Your task to perform on an android device: install app "Etsy: Buy & Sell Unique Items" Image 0: 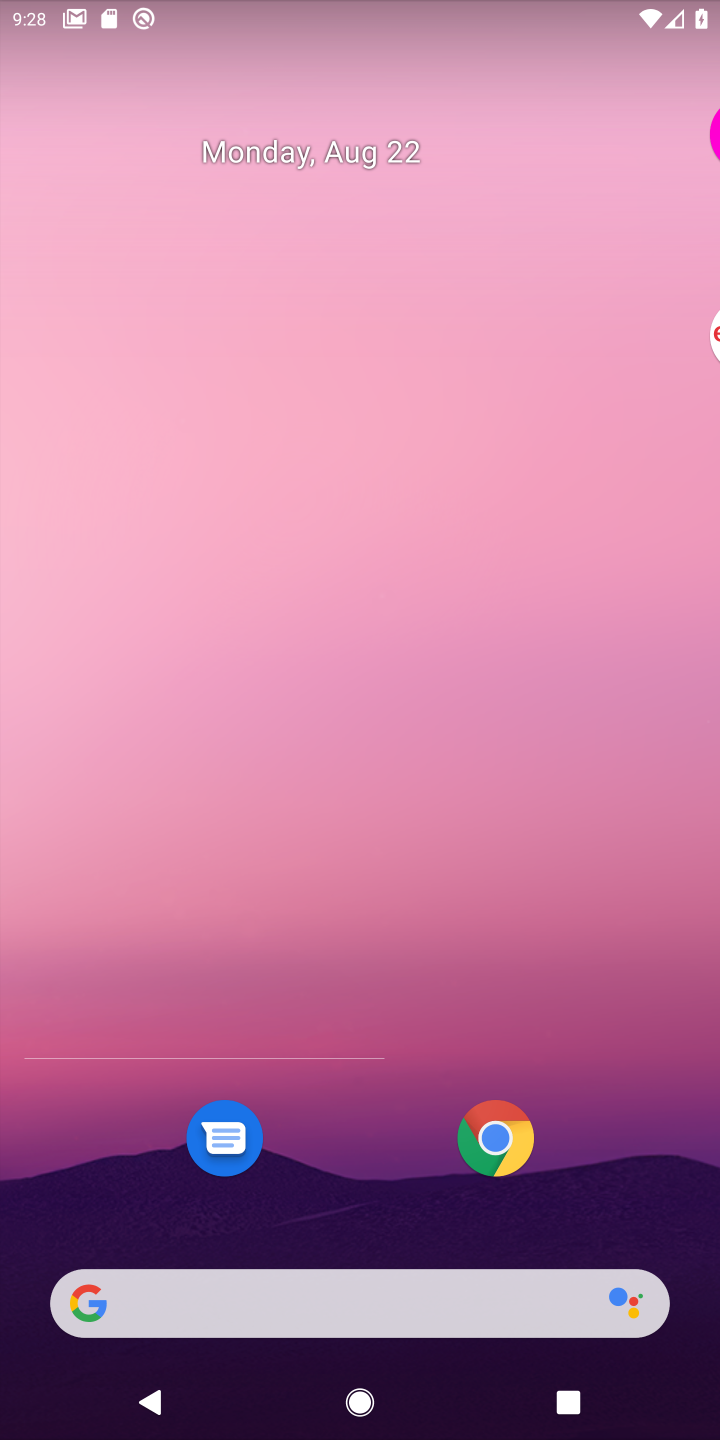
Step 0: press home button
Your task to perform on an android device: install app "Etsy: Buy & Sell Unique Items" Image 1: 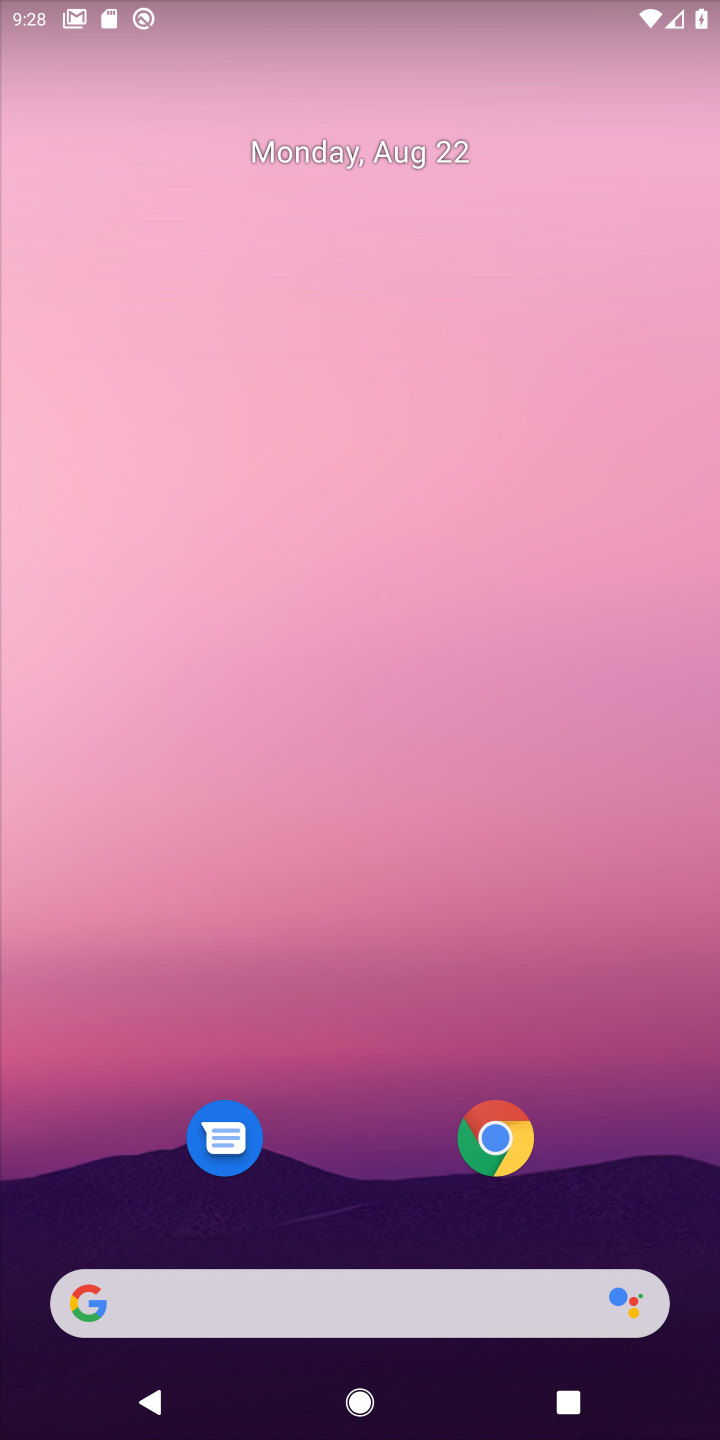
Step 1: drag from (358, 1264) to (440, 18)
Your task to perform on an android device: install app "Etsy: Buy & Sell Unique Items" Image 2: 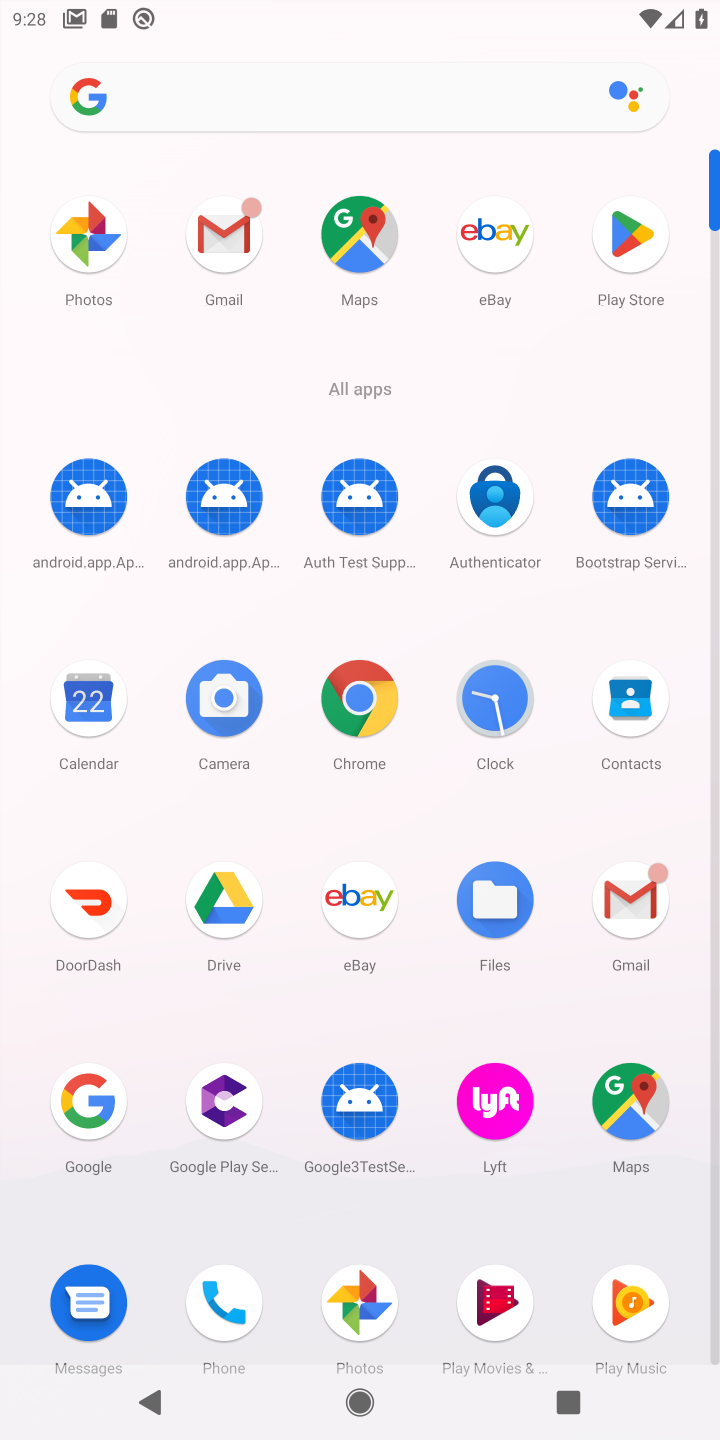
Step 2: drag from (283, 1218) to (341, 213)
Your task to perform on an android device: install app "Etsy: Buy & Sell Unique Items" Image 3: 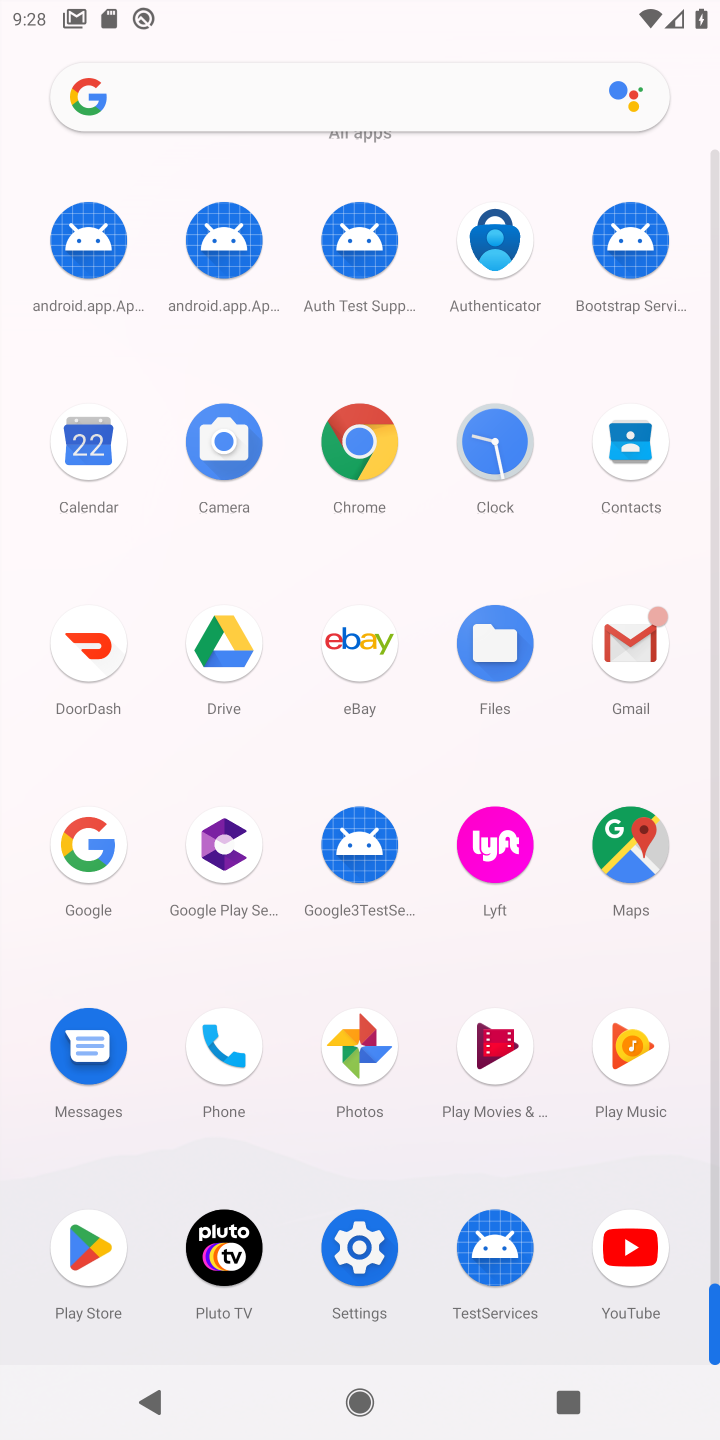
Step 3: click (74, 1249)
Your task to perform on an android device: install app "Etsy: Buy & Sell Unique Items" Image 4: 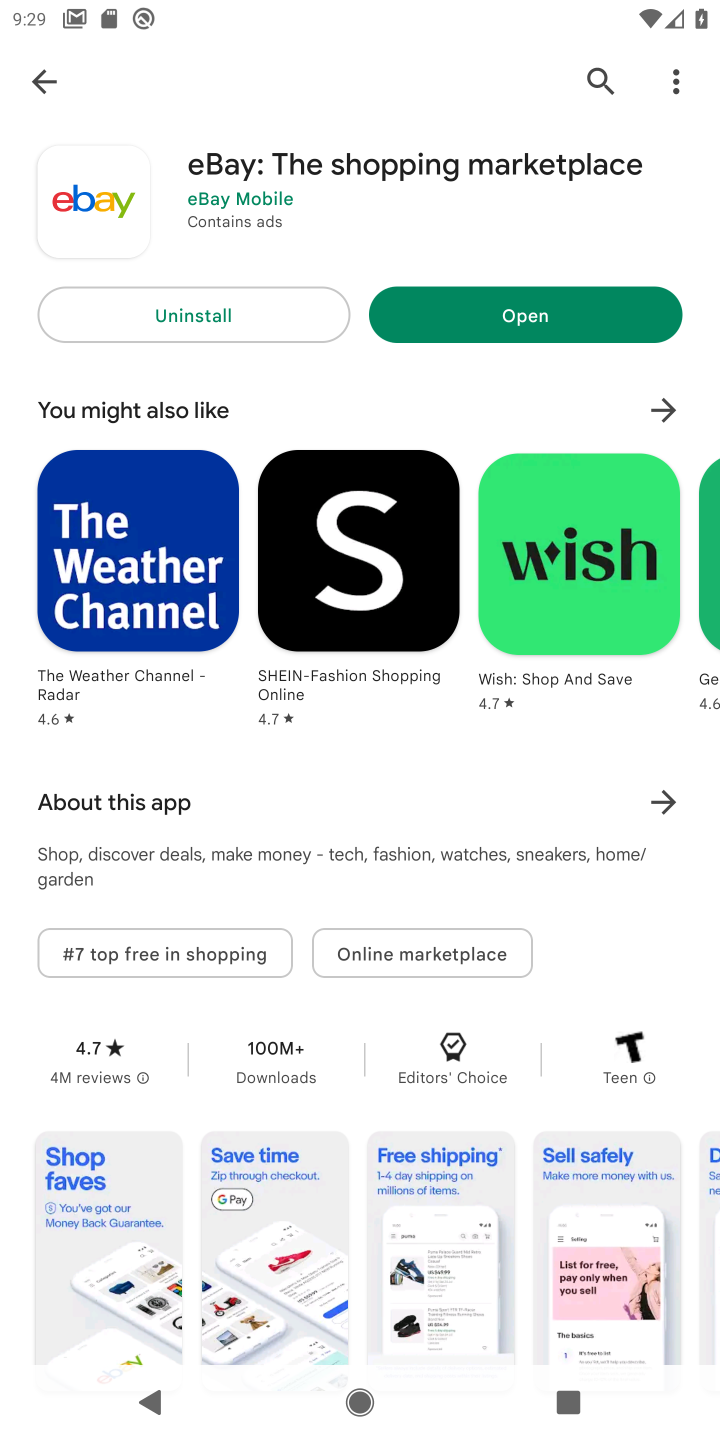
Step 4: click (586, 69)
Your task to perform on an android device: install app "Etsy: Buy & Sell Unique Items" Image 5: 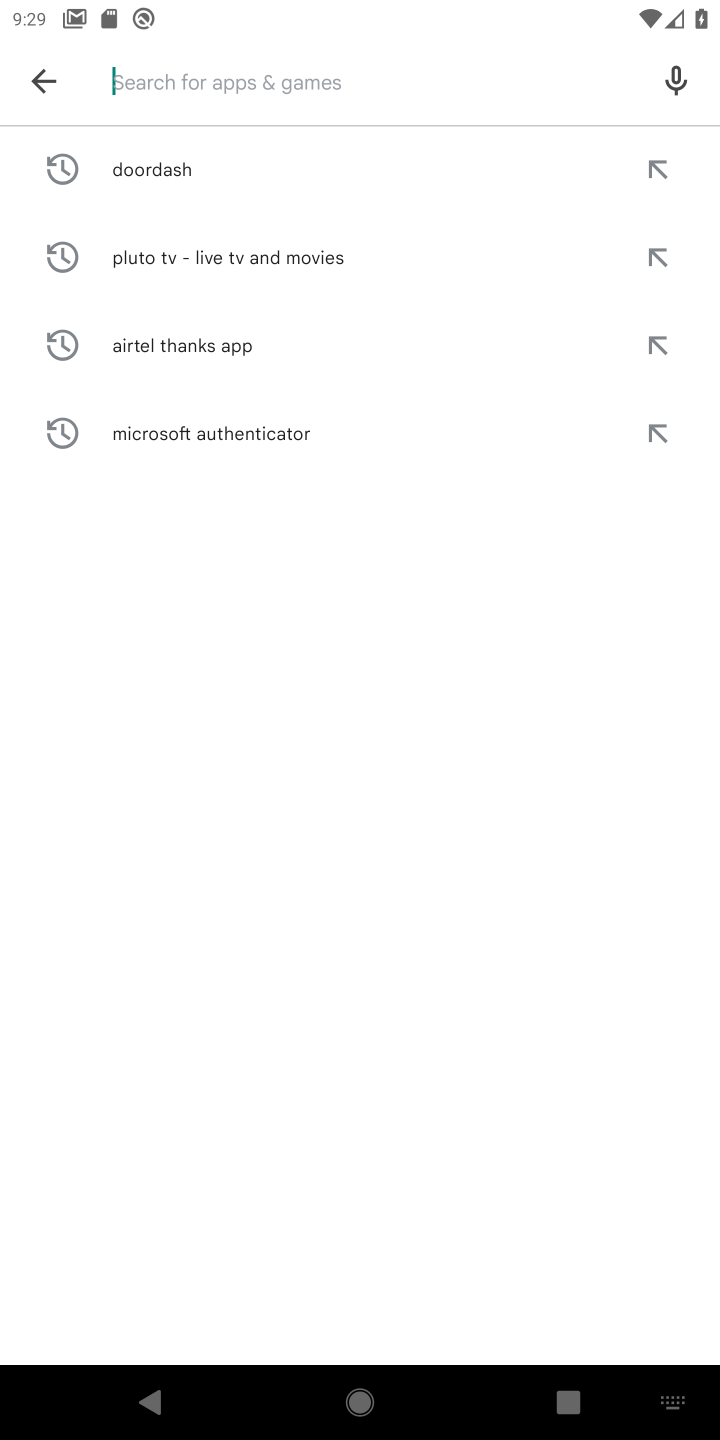
Step 5: type "Etsy: Buy & Sell Unique Items"
Your task to perform on an android device: install app "Etsy: Buy & Sell Unique Items" Image 6: 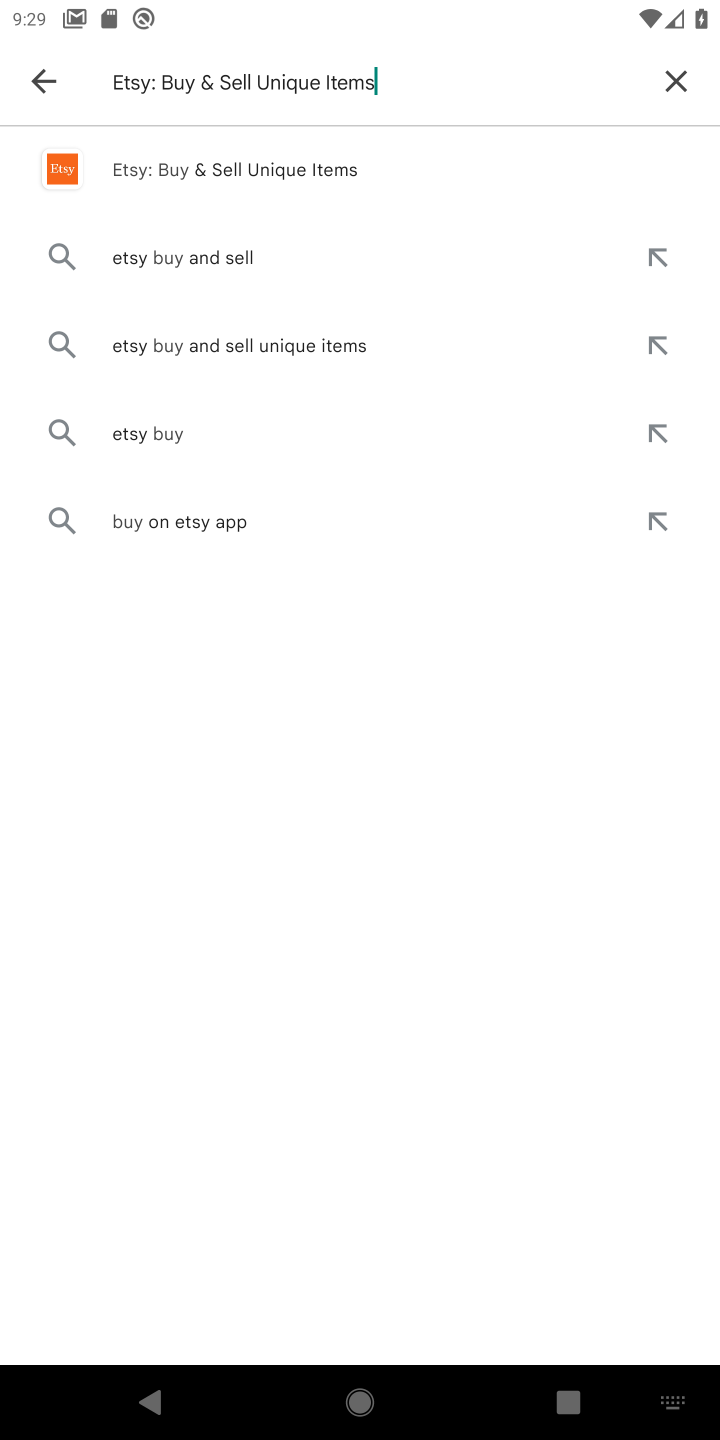
Step 6: type ""
Your task to perform on an android device: install app "Etsy: Buy & Sell Unique Items" Image 7: 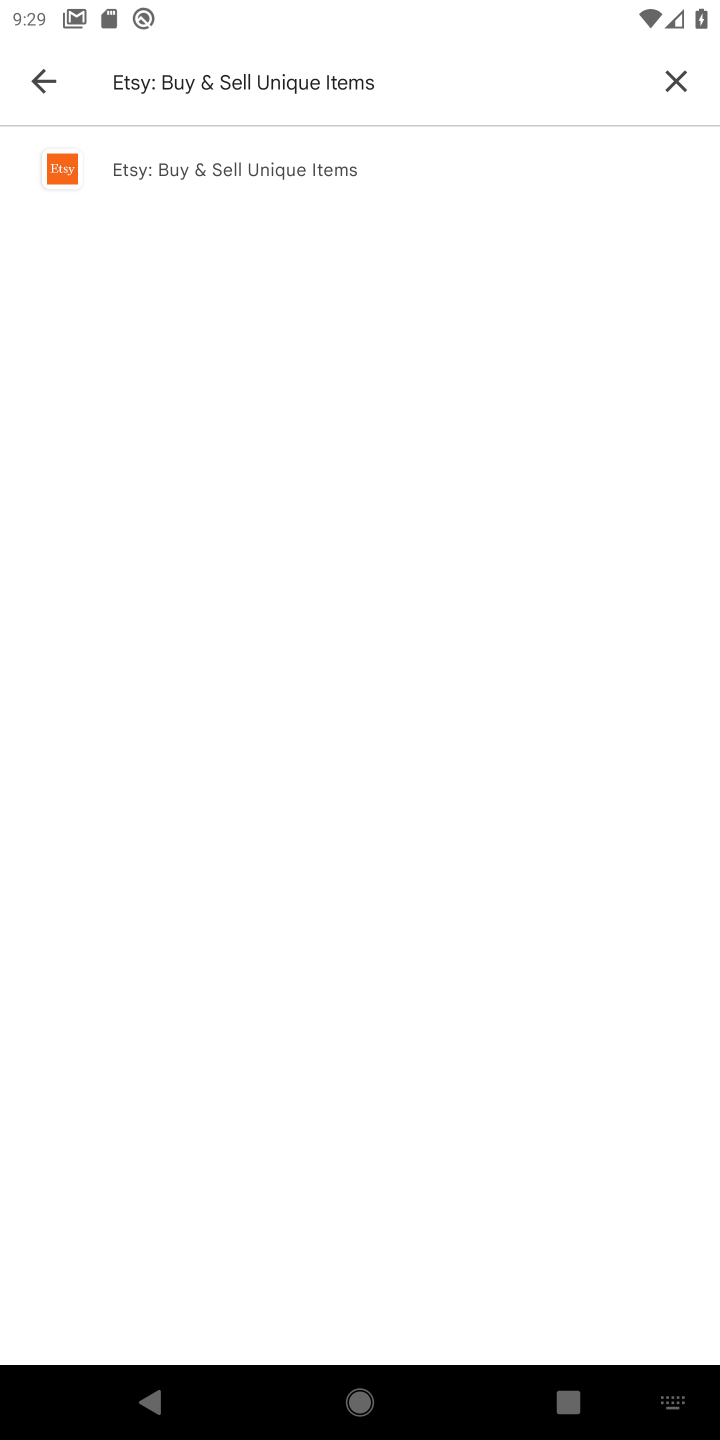
Step 7: click (138, 186)
Your task to perform on an android device: install app "Etsy: Buy & Sell Unique Items" Image 8: 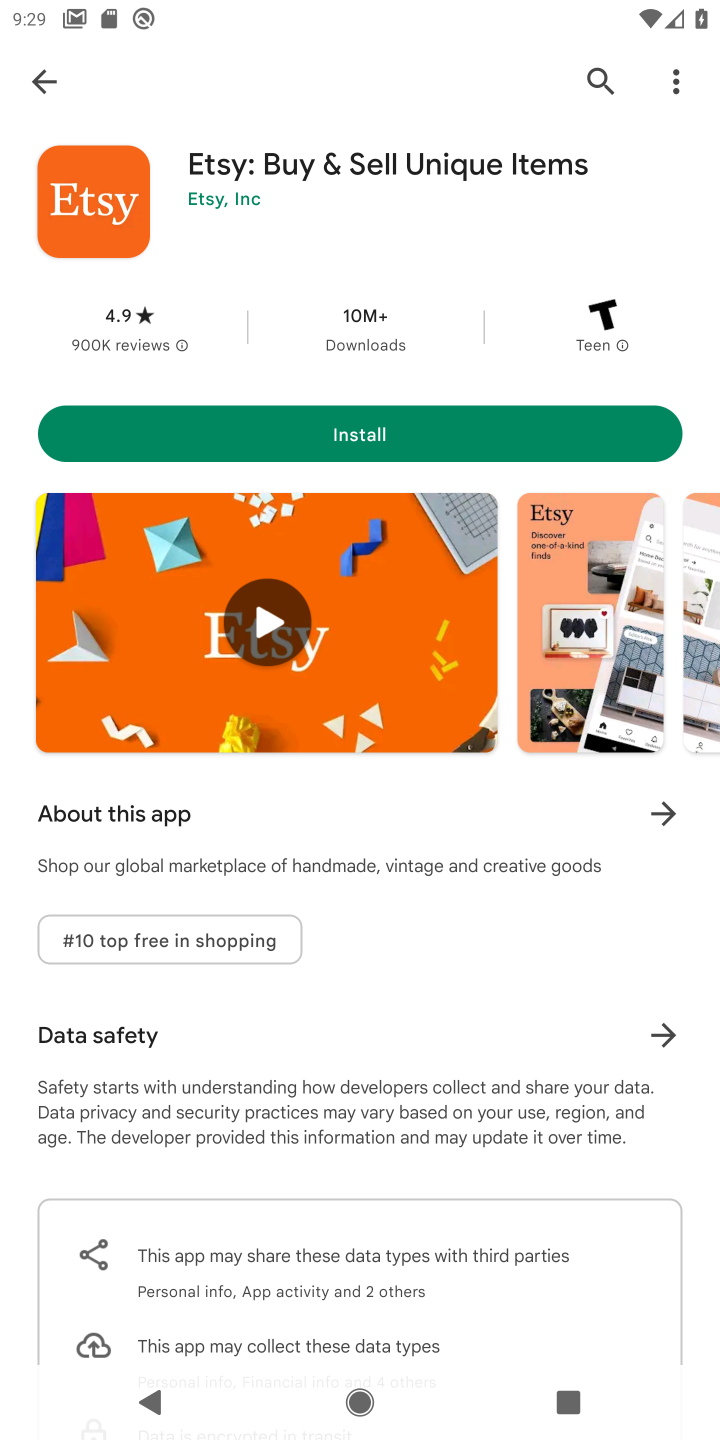
Step 8: click (425, 431)
Your task to perform on an android device: install app "Etsy: Buy & Sell Unique Items" Image 9: 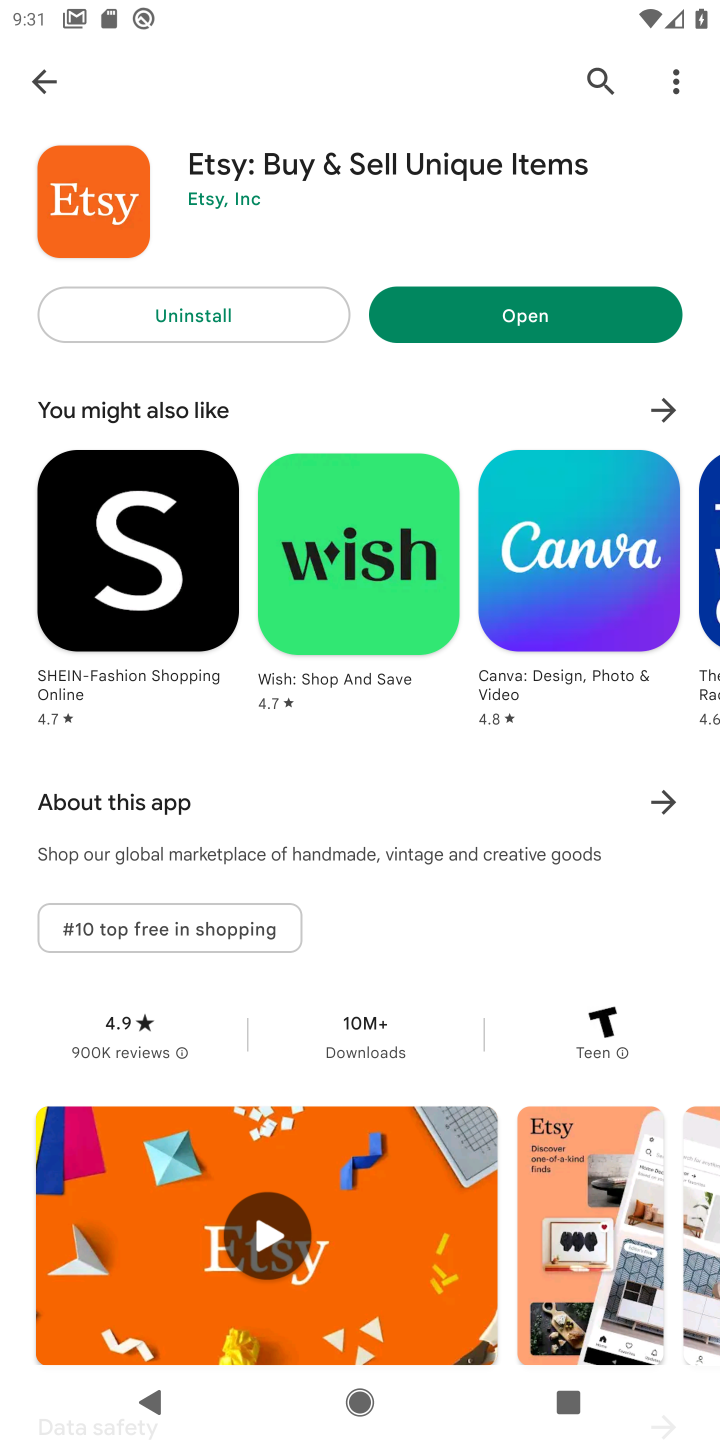
Step 9: task complete